Your task to perform on an android device: open app "ColorNote Notepad Notes" (install if not already installed) and enter user name: "unbridled@gmail.com" and password: "regularly" Image 0: 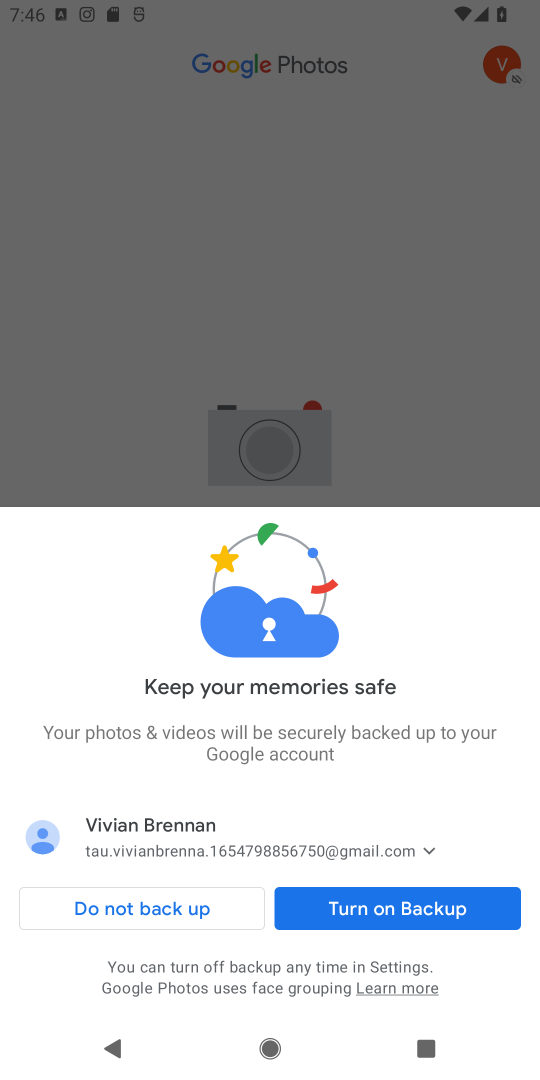
Step 0: press home button
Your task to perform on an android device: open app "ColorNote Notepad Notes" (install if not already installed) and enter user name: "unbridled@gmail.com" and password: "regularly" Image 1: 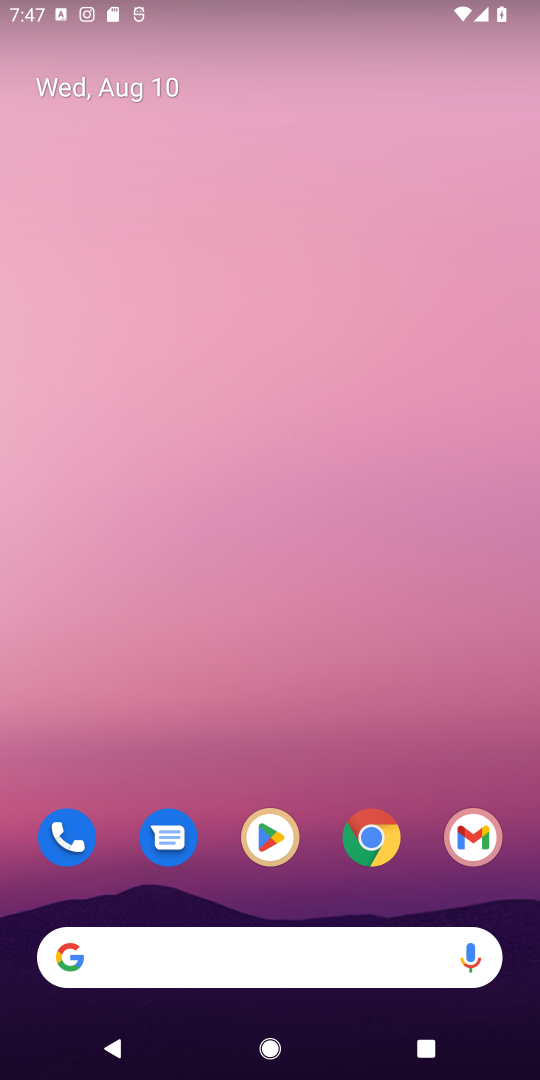
Step 1: click (265, 830)
Your task to perform on an android device: open app "ColorNote Notepad Notes" (install if not already installed) and enter user name: "unbridled@gmail.com" and password: "regularly" Image 2: 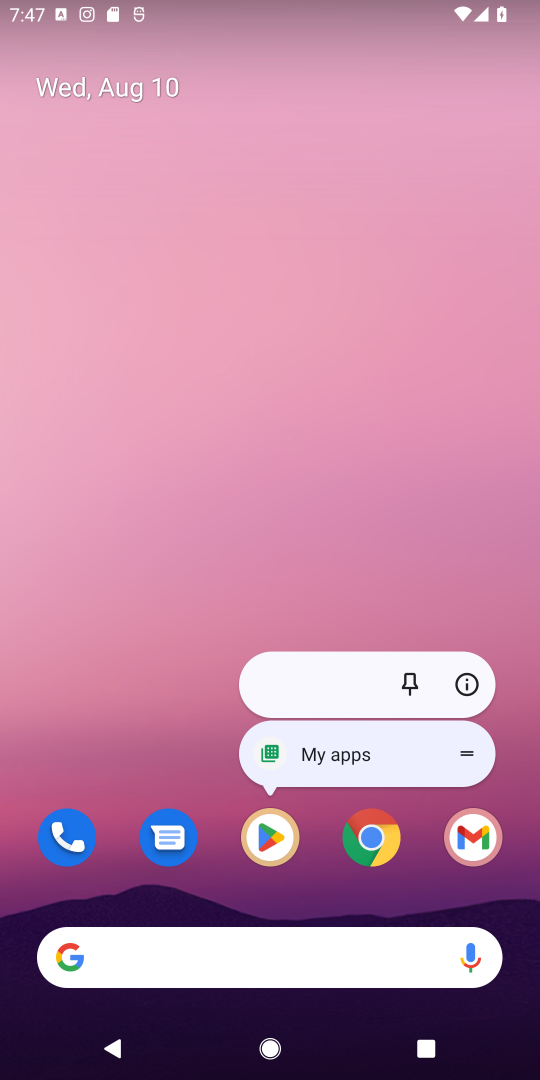
Step 2: click (265, 833)
Your task to perform on an android device: open app "ColorNote Notepad Notes" (install if not already installed) and enter user name: "unbridled@gmail.com" and password: "regularly" Image 3: 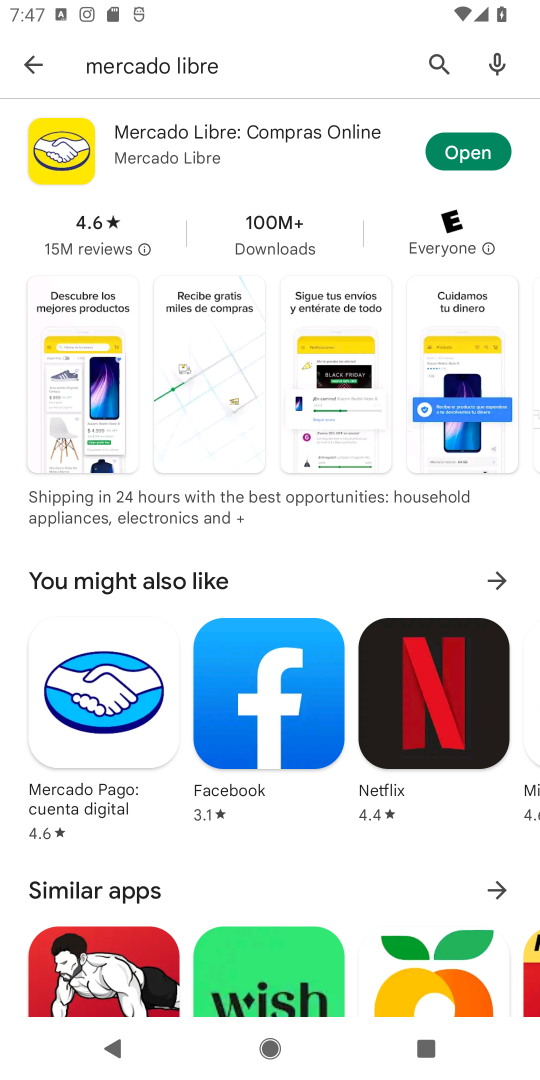
Step 3: click (437, 61)
Your task to perform on an android device: open app "ColorNote Notepad Notes" (install if not already installed) and enter user name: "unbridled@gmail.com" and password: "regularly" Image 4: 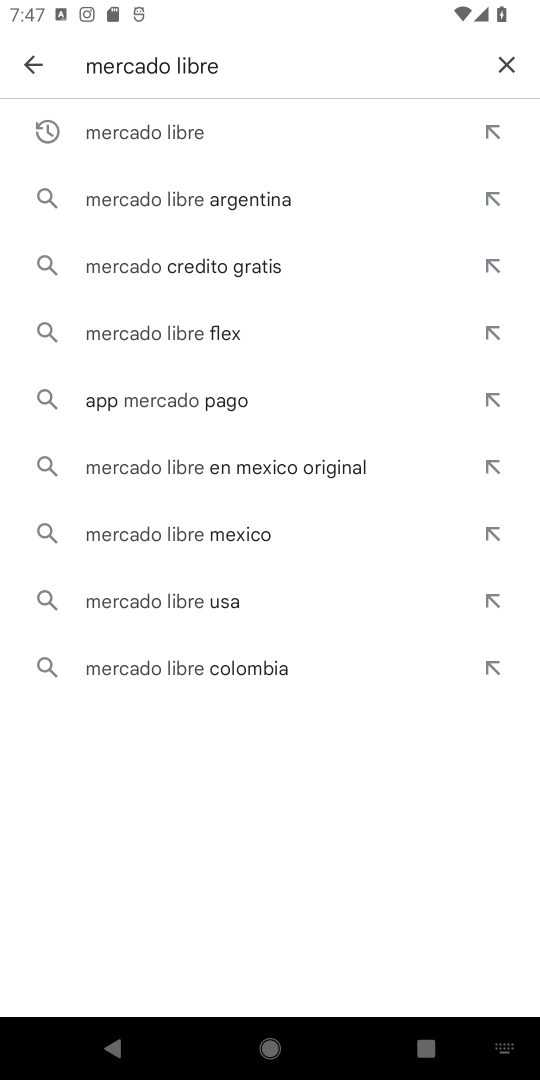
Step 4: click (495, 49)
Your task to perform on an android device: open app "ColorNote Notepad Notes" (install if not already installed) and enter user name: "unbridled@gmail.com" and password: "regularly" Image 5: 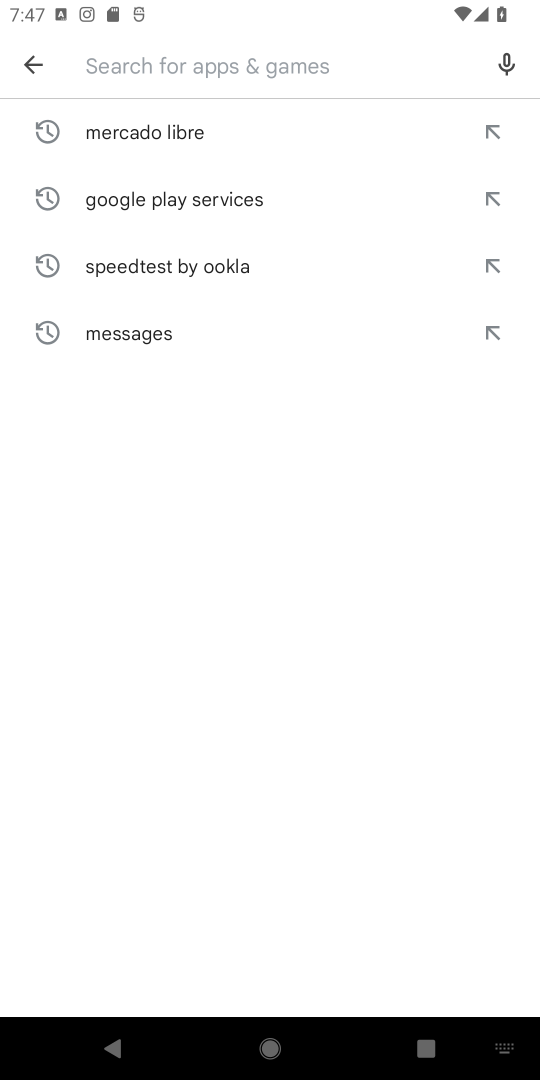
Step 5: type "ColorNote Notepad Notes"
Your task to perform on an android device: open app "ColorNote Notepad Notes" (install if not already installed) and enter user name: "unbridled@gmail.com" and password: "regularly" Image 6: 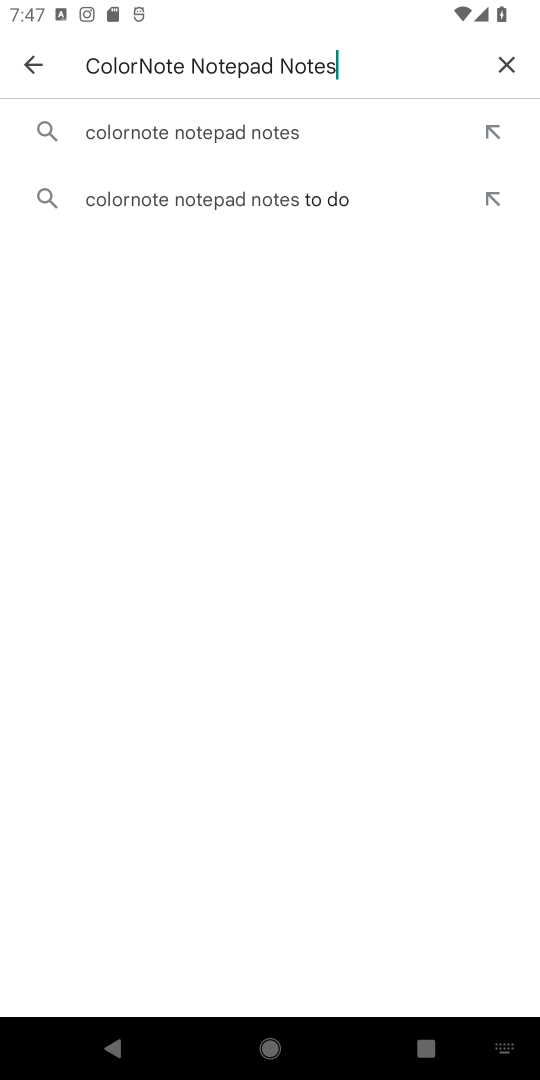
Step 6: click (267, 133)
Your task to perform on an android device: open app "ColorNote Notepad Notes" (install if not already installed) and enter user name: "unbridled@gmail.com" and password: "regularly" Image 7: 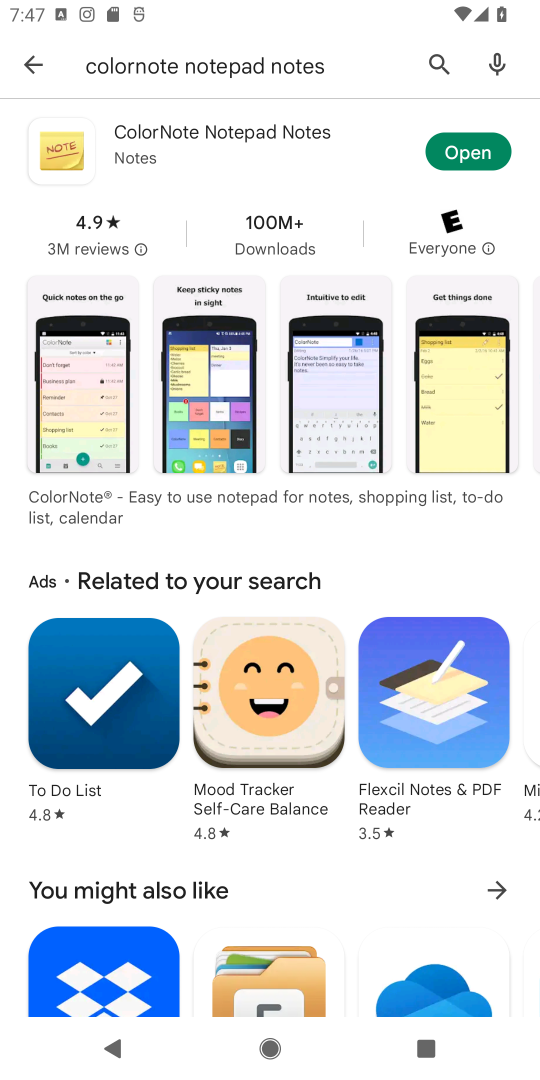
Step 7: click (473, 153)
Your task to perform on an android device: open app "ColorNote Notepad Notes" (install if not already installed) and enter user name: "unbridled@gmail.com" and password: "regularly" Image 8: 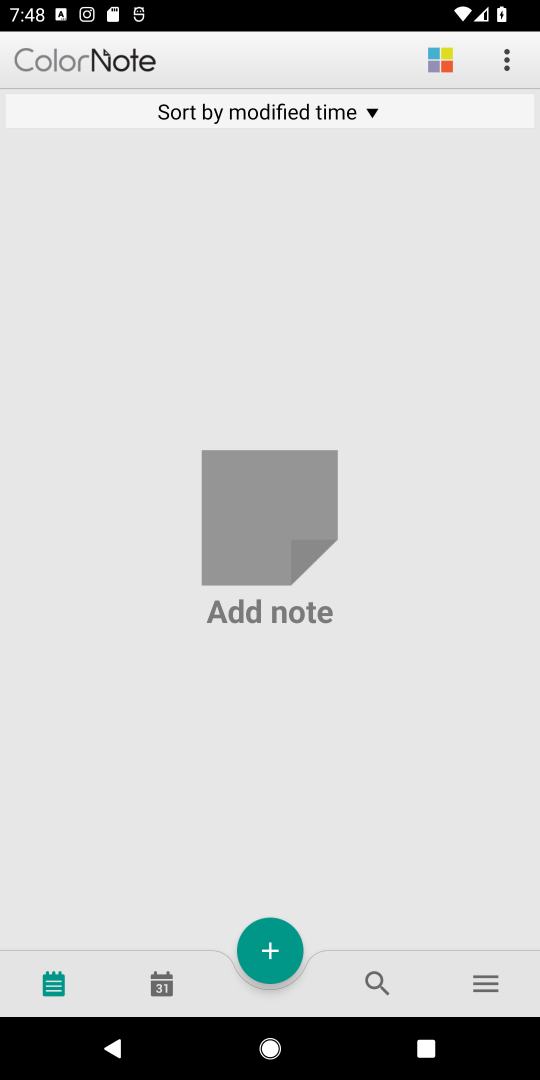
Step 8: task complete